Your task to perform on an android device: open chrome and create a bookmark for the current page Image 0: 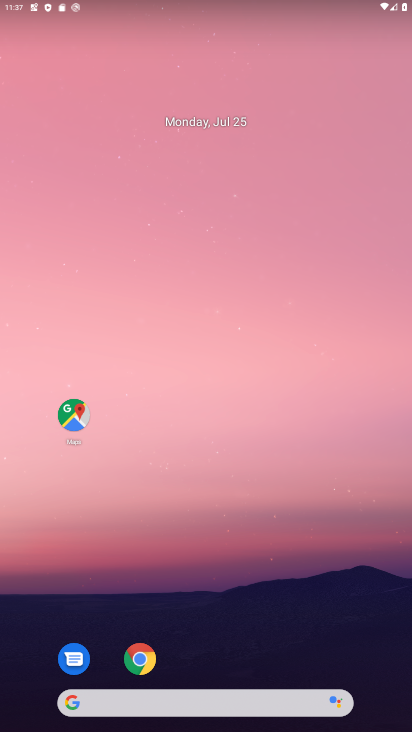
Step 0: click (138, 662)
Your task to perform on an android device: open chrome and create a bookmark for the current page Image 1: 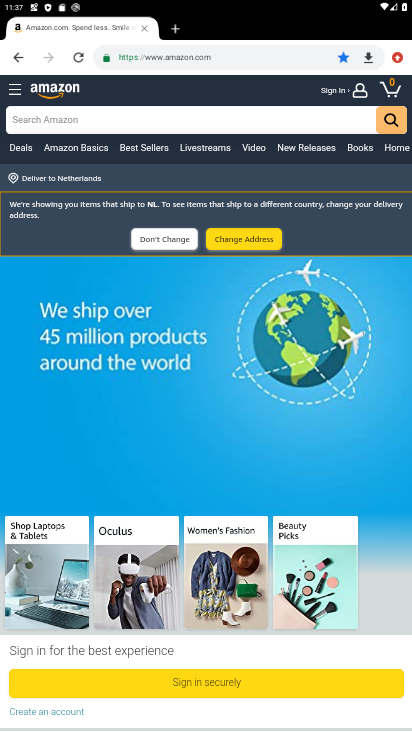
Step 1: task complete